Your task to perform on an android device: open chrome privacy settings Image 0: 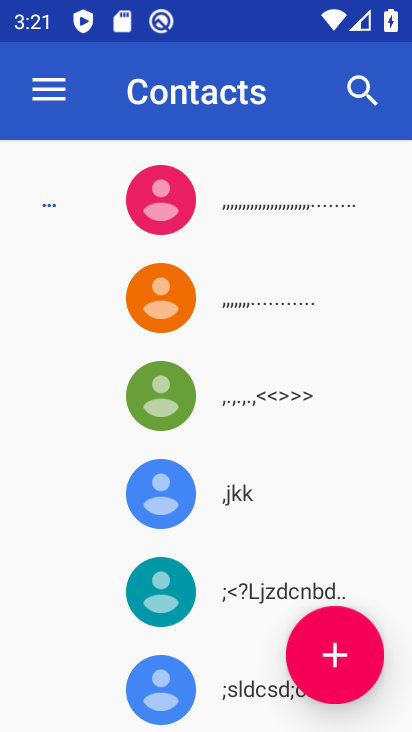
Step 0: press back button
Your task to perform on an android device: open chrome privacy settings Image 1: 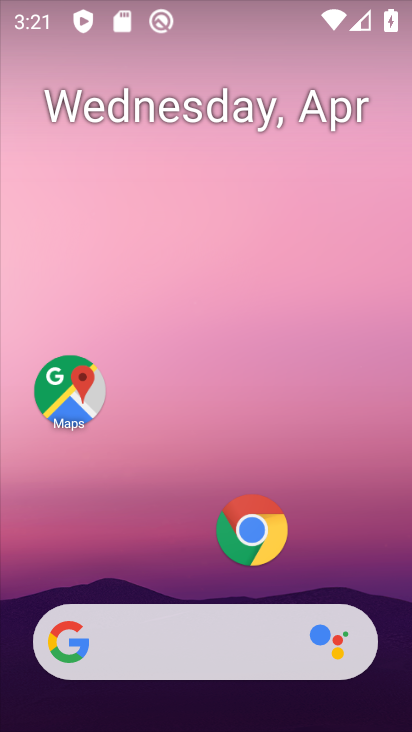
Step 1: drag from (209, 448) to (314, 37)
Your task to perform on an android device: open chrome privacy settings Image 2: 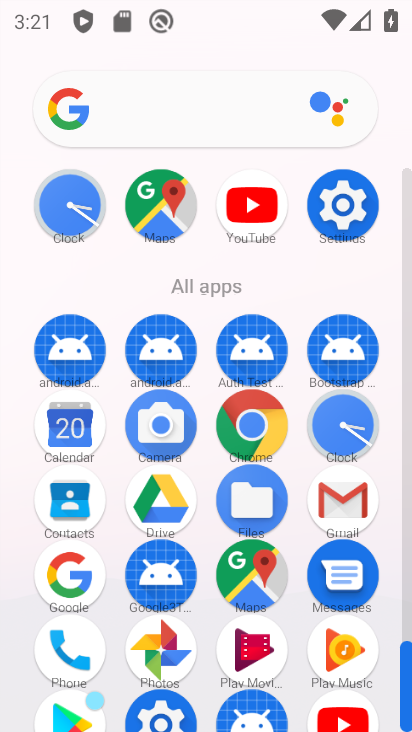
Step 2: click (355, 197)
Your task to perform on an android device: open chrome privacy settings Image 3: 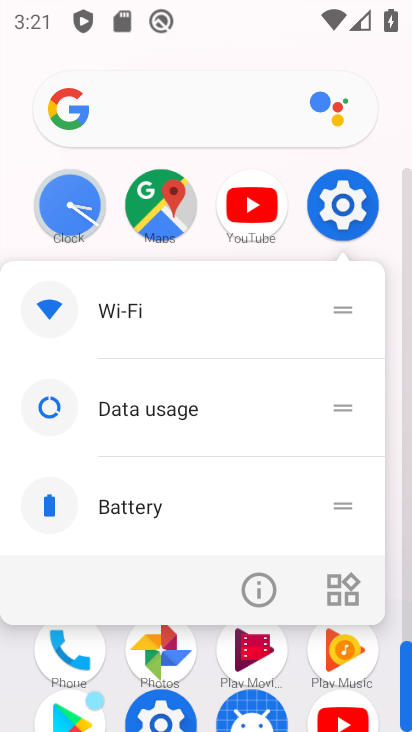
Step 3: click (349, 203)
Your task to perform on an android device: open chrome privacy settings Image 4: 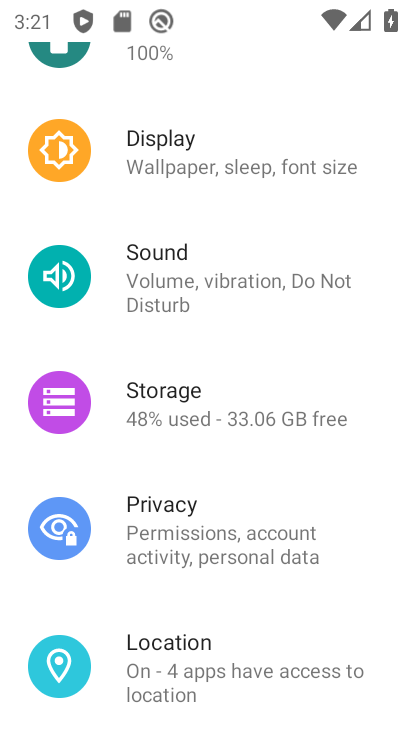
Step 4: drag from (206, 661) to (289, 186)
Your task to perform on an android device: open chrome privacy settings Image 5: 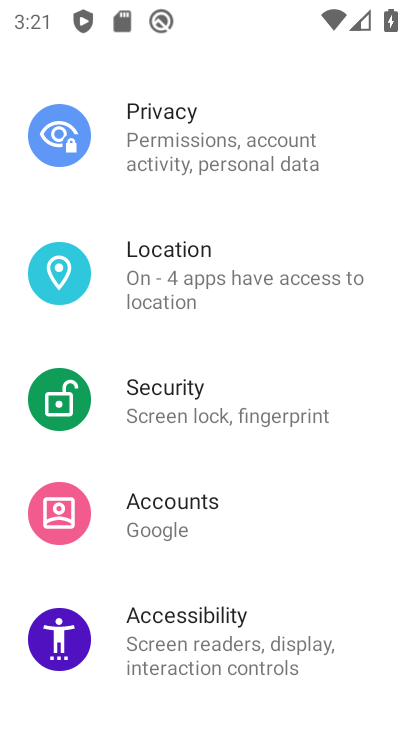
Step 5: click (209, 133)
Your task to perform on an android device: open chrome privacy settings Image 6: 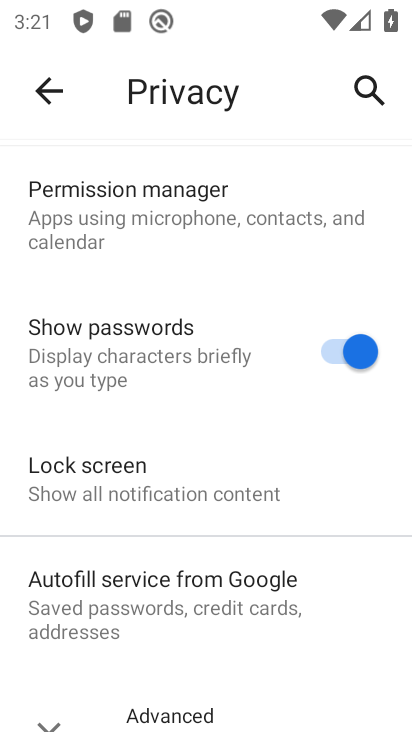
Step 6: task complete